Your task to perform on an android device: turn off priority inbox in the gmail app Image 0: 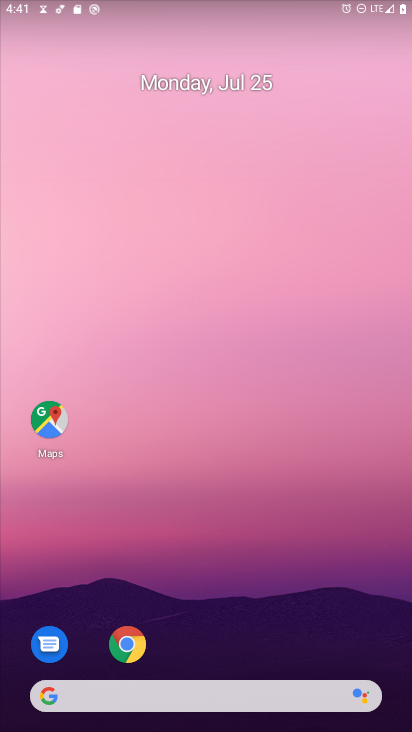
Step 0: press home button
Your task to perform on an android device: turn off priority inbox in the gmail app Image 1: 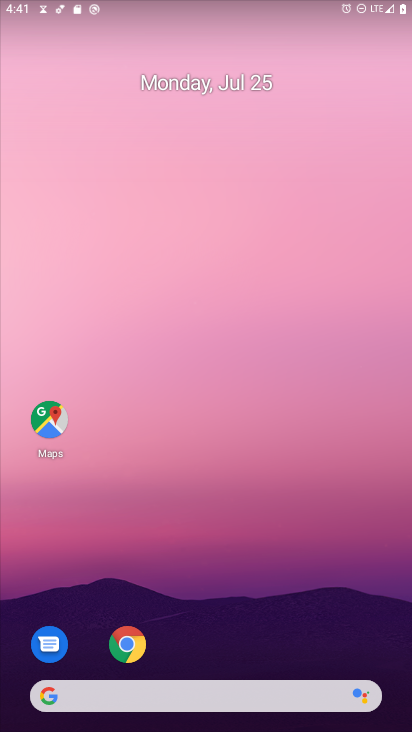
Step 1: drag from (304, 575) to (291, 45)
Your task to perform on an android device: turn off priority inbox in the gmail app Image 2: 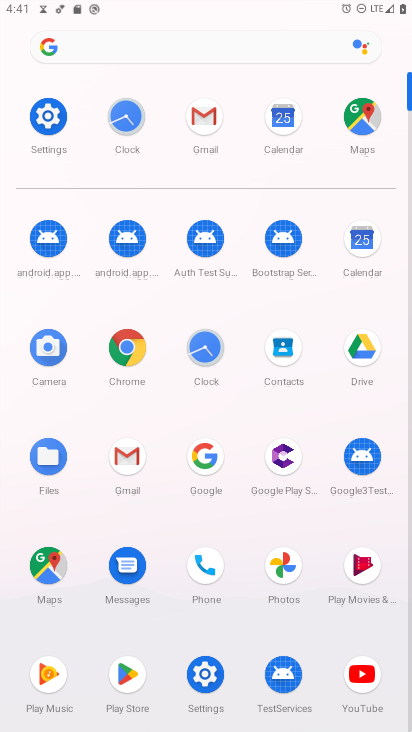
Step 2: click (199, 124)
Your task to perform on an android device: turn off priority inbox in the gmail app Image 3: 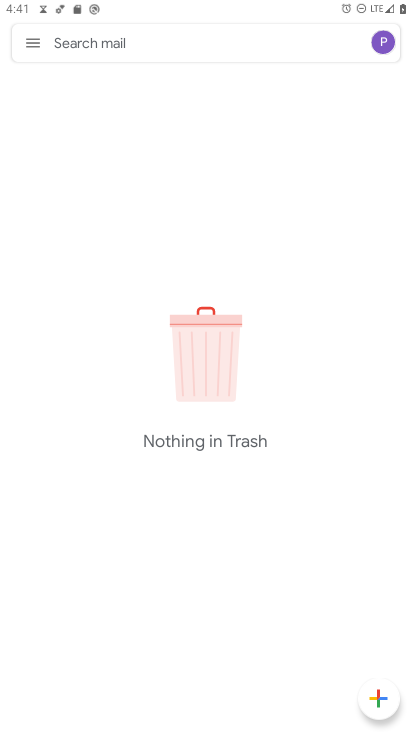
Step 3: click (29, 50)
Your task to perform on an android device: turn off priority inbox in the gmail app Image 4: 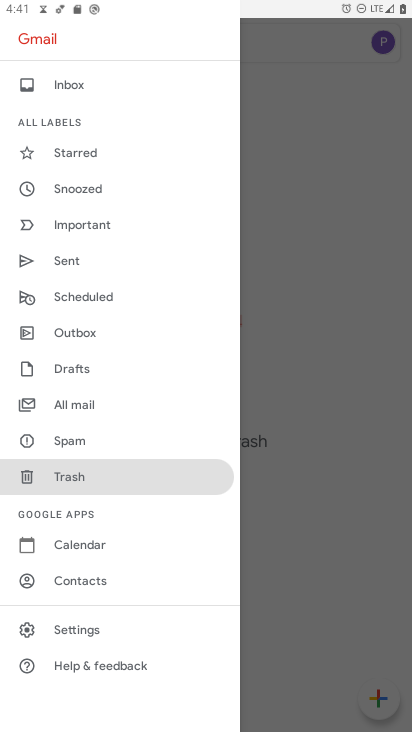
Step 4: click (65, 634)
Your task to perform on an android device: turn off priority inbox in the gmail app Image 5: 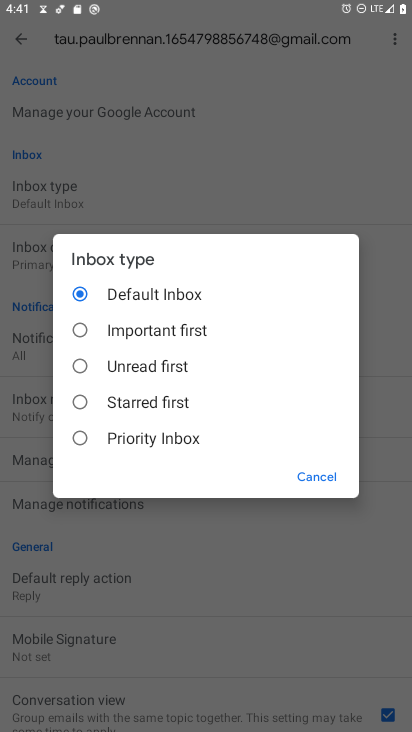
Step 5: click (314, 474)
Your task to perform on an android device: turn off priority inbox in the gmail app Image 6: 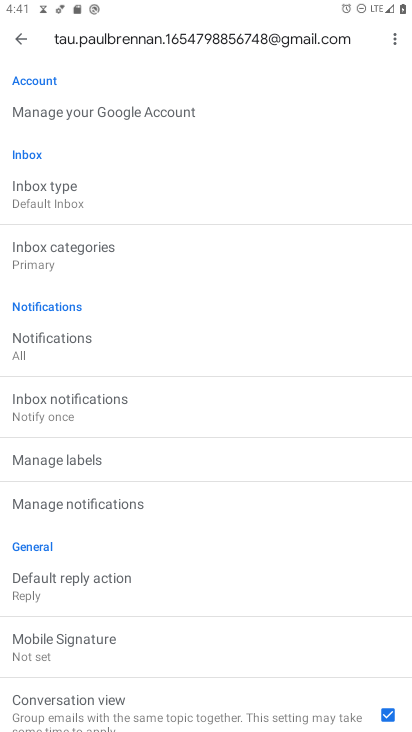
Step 6: task complete